Your task to perform on an android device: delete location history Image 0: 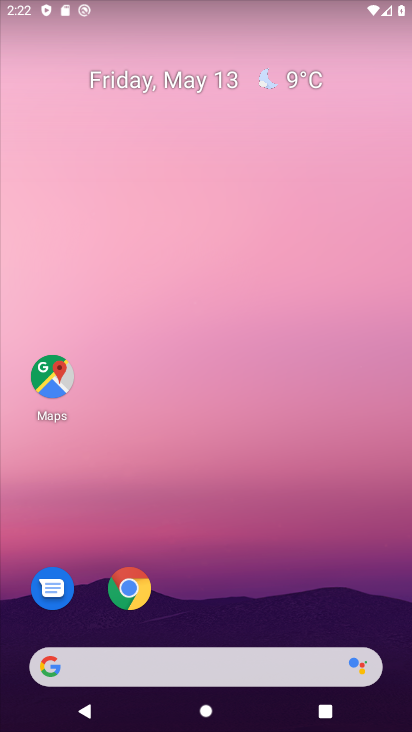
Step 0: drag from (232, 653) to (246, 11)
Your task to perform on an android device: delete location history Image 1: 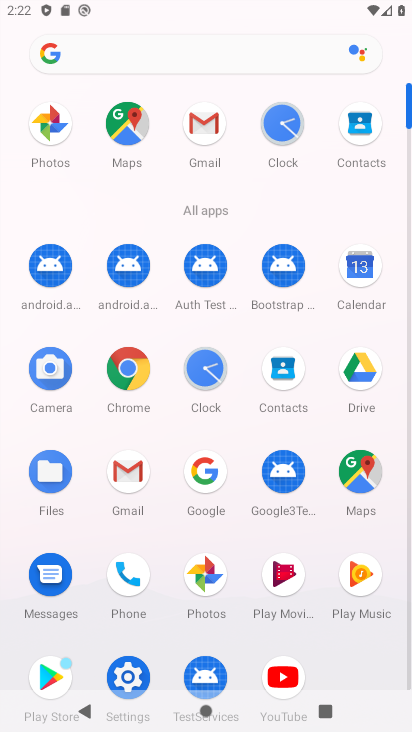
Step 1: click (129, 117)
Your task to perform on an android device: delete location history Image 2: 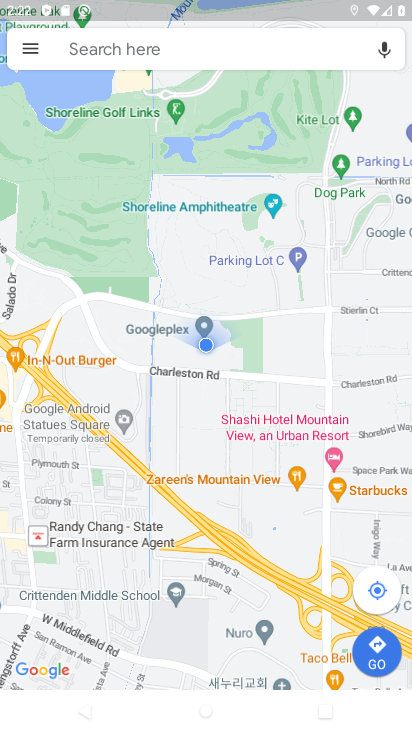
Step 2: click (16, 47)
Your task to perform on an android device: delete location history Image 3: 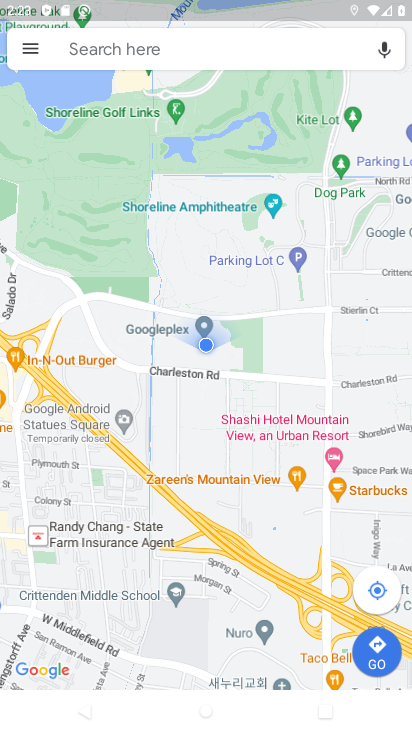
Step 3: click (26, 56)
Your task to perform on an android device: delete location history Image 4: 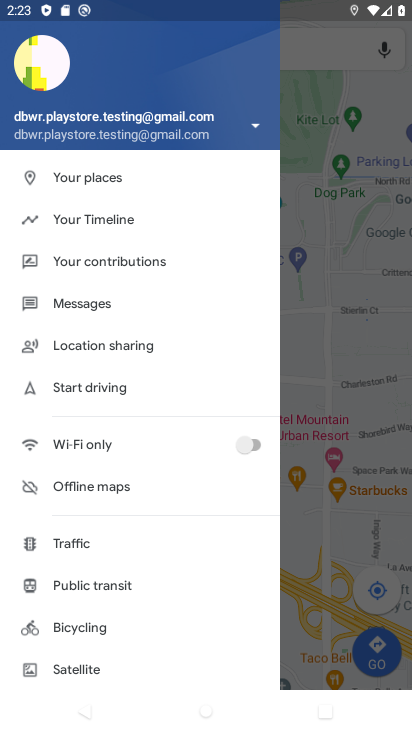
Step 4: click (110, 220)
Your task to perform on an android device: delete location history Image 5: 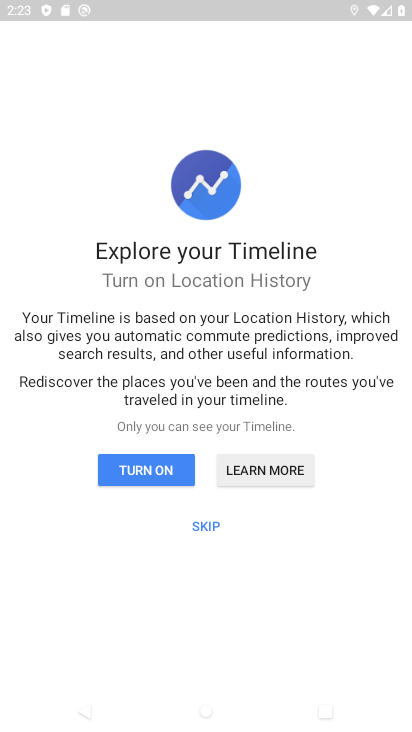
Step 5: click (168, 467)
Your task to perform on an android device: delete location history Image 6: 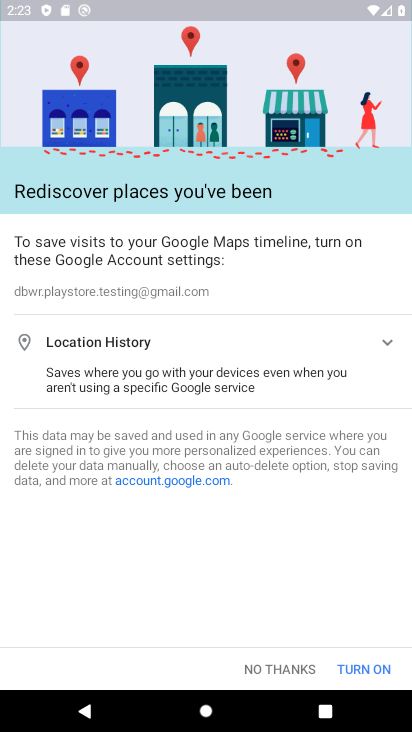
Step 6: click (363, 667)
Your task to perform on an android device: delete location history Image 7: 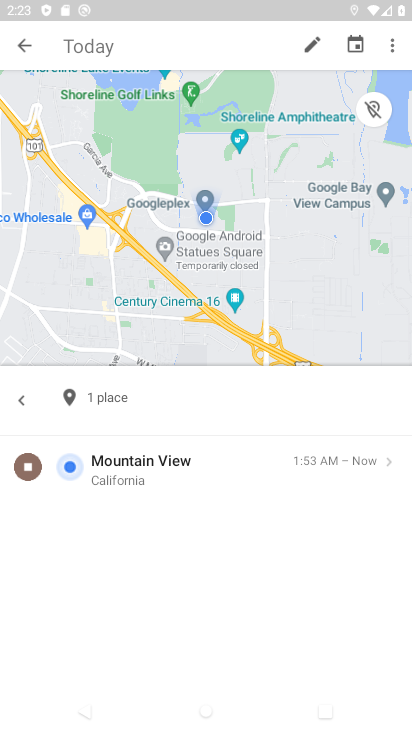
Step 7: click (392, 49)
Your task to perform on an android device: delete location history Image 8: 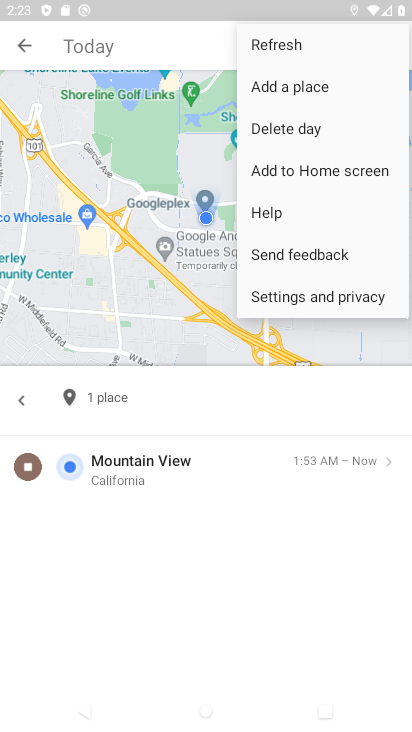
Step 8: click (305, 293)
Your task to perform on an android device: delete location history Image 9: 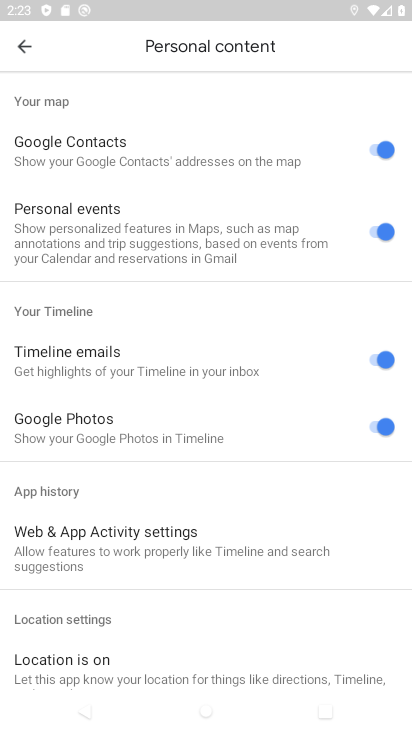
Step 9: drag from (238, 620) to (245, 253)
Your task to perform on an android device: delete location history Image 10: 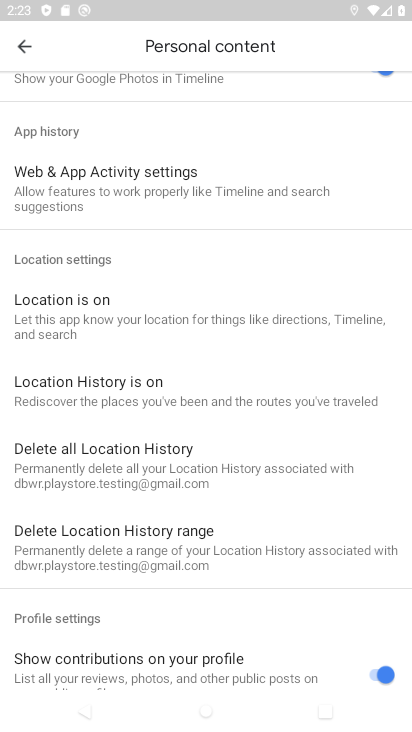
Step 10: click (195, 453)
Your task to perform on an android device: delete location history Image 11: 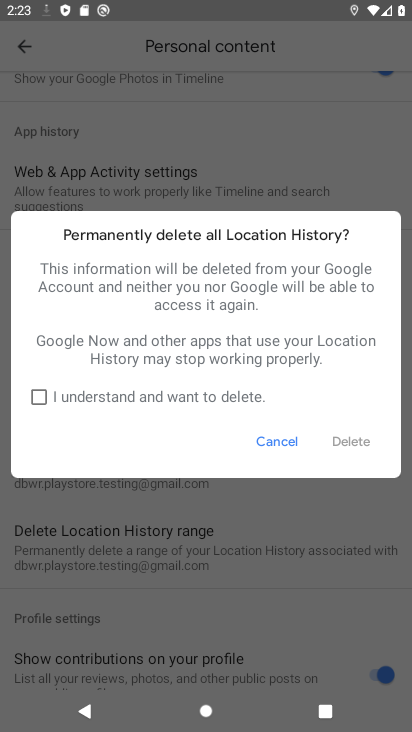
Step 11: click (161, 388)
Your task to perform on an android device: delete location history Image 12: 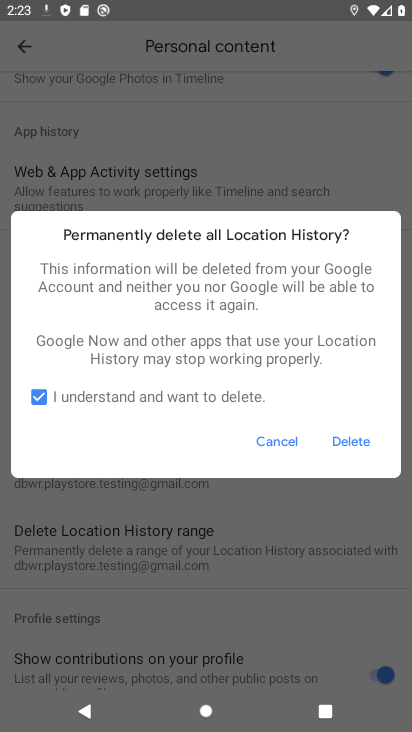
Step 12: click (356, 449)
Your task to perform on an android device: delete location history Image 13: 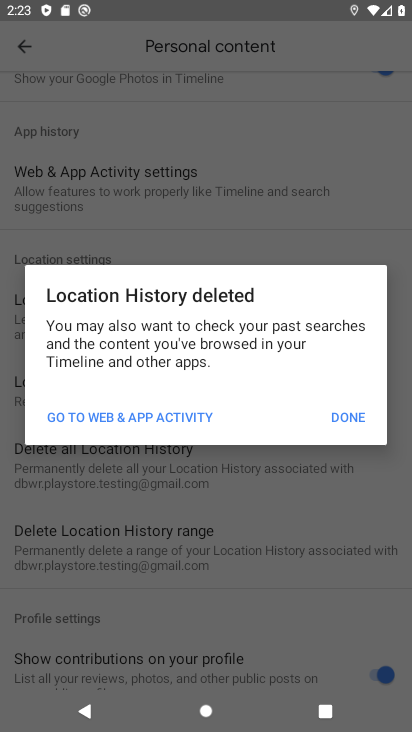
Step 13: task complete